Your task to perform on an android device: toggle improve location accuracy Image 0: 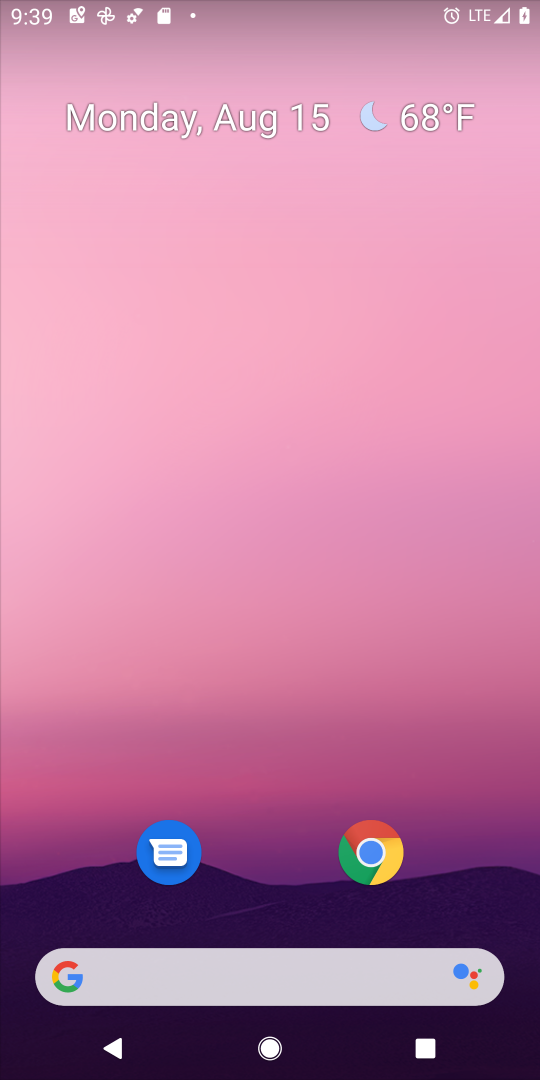
Step 0: drag from (234, 990) to (381, 238)
Your task to perform on an android device: toggle improve location accuracy Image 1: 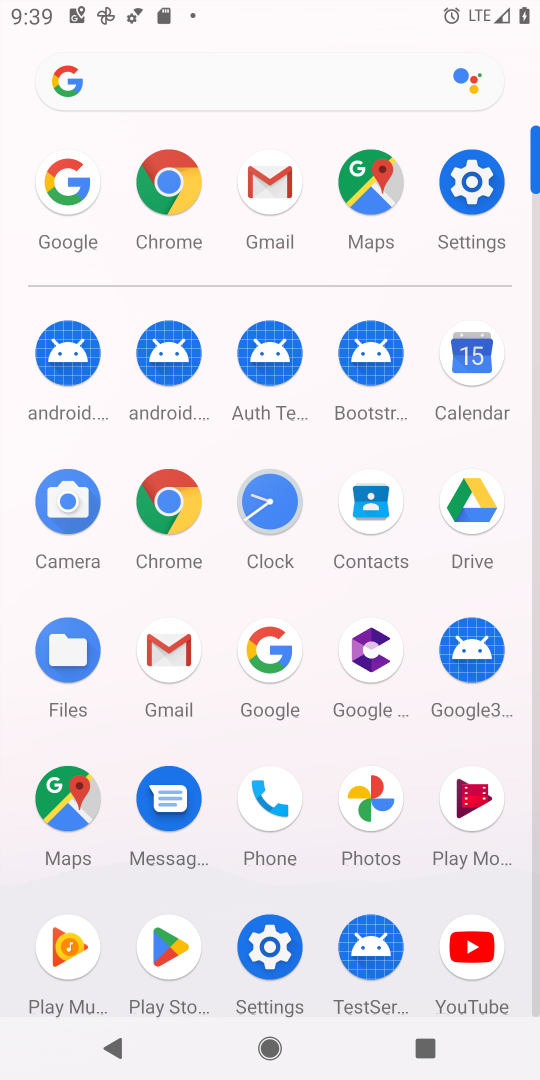
Step 1: click (470, 183)
Your task to perform on an android device: toggle improve location accuracy Image 2: 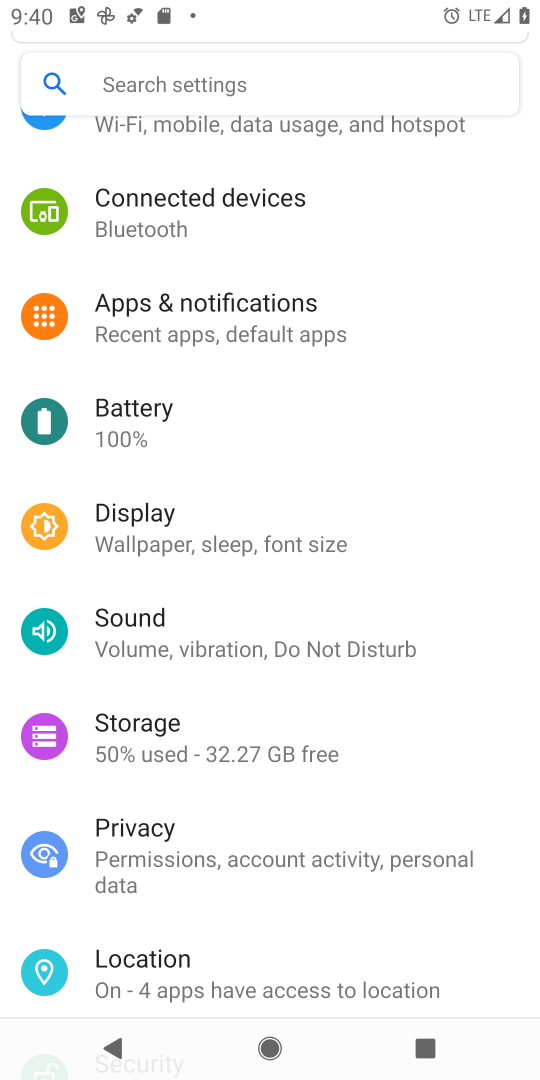
Step 2: drag from (217, 898) to (289, 723)
Your task to perform on an android device: toggle improve location accuracy Image 3: 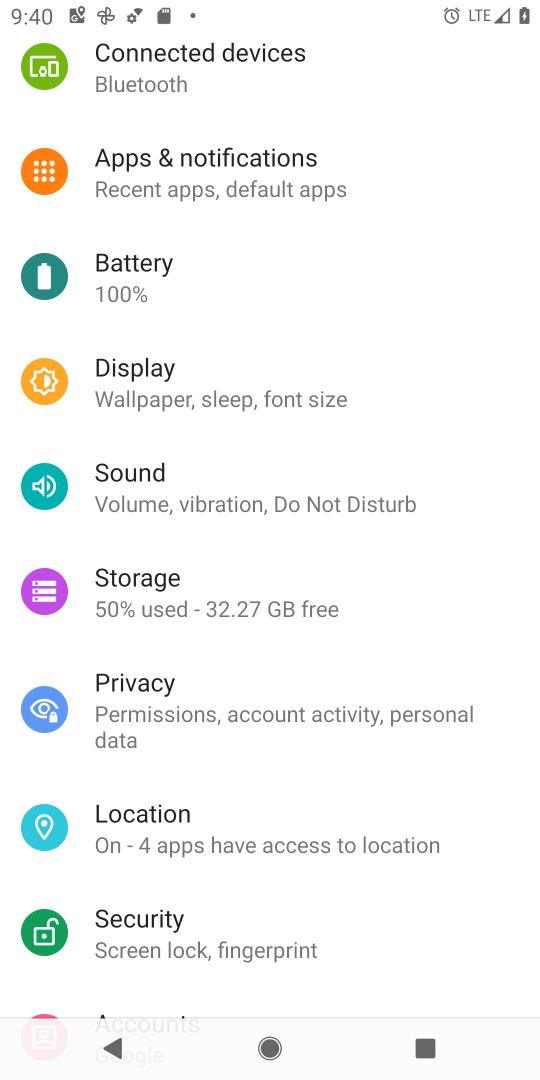
Step 3: click (208, 851)
Your task to perform on an android device: toggle improve location accuracy Image 4: 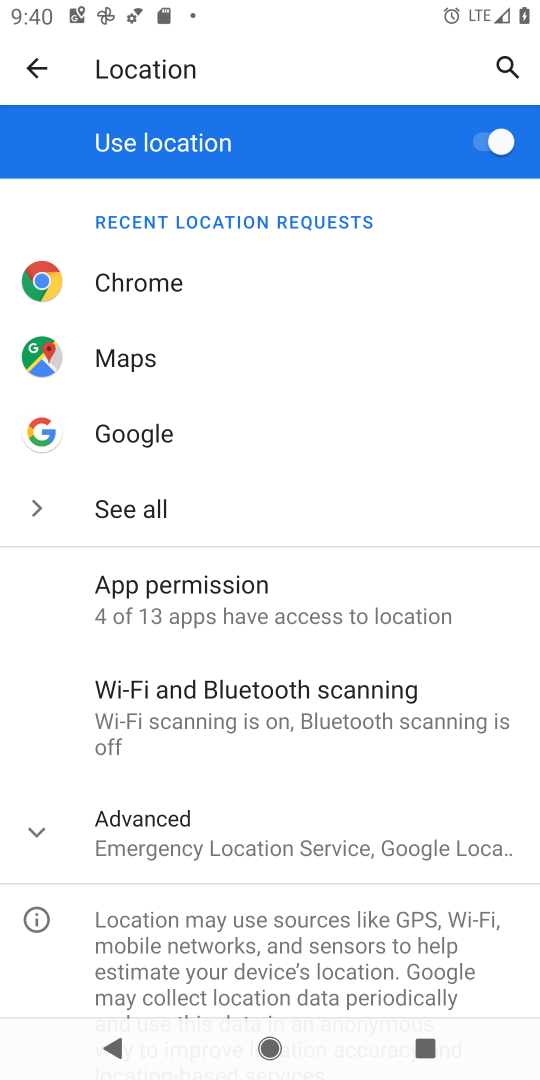
Step 4: click (225, 841)
Your task to perform on an android device: toggle improve location accuracy Image 5: 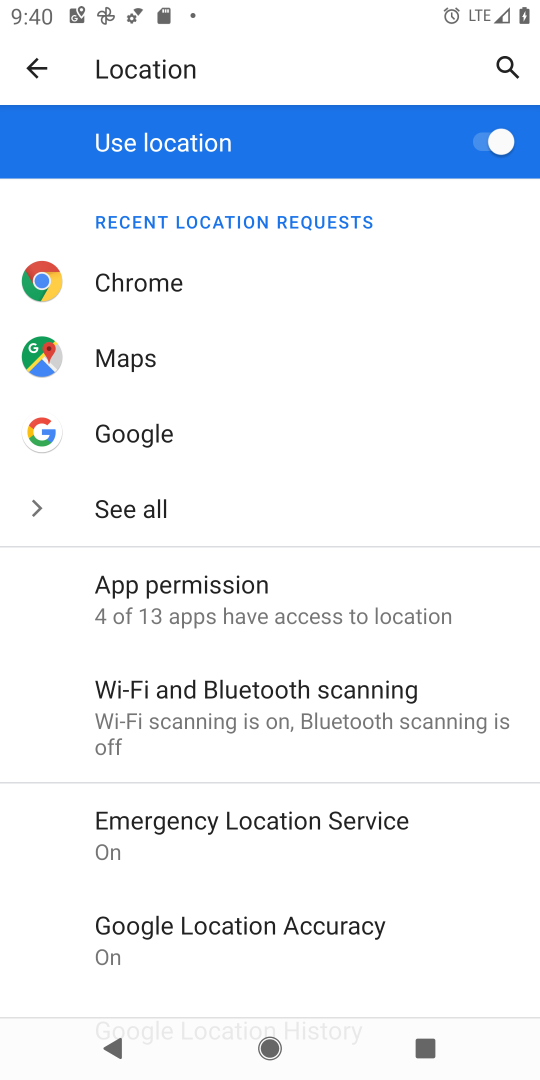
Step 5: click (199, 932)
Your task to perform on an android device: toggle improve location accuracy Image 6: 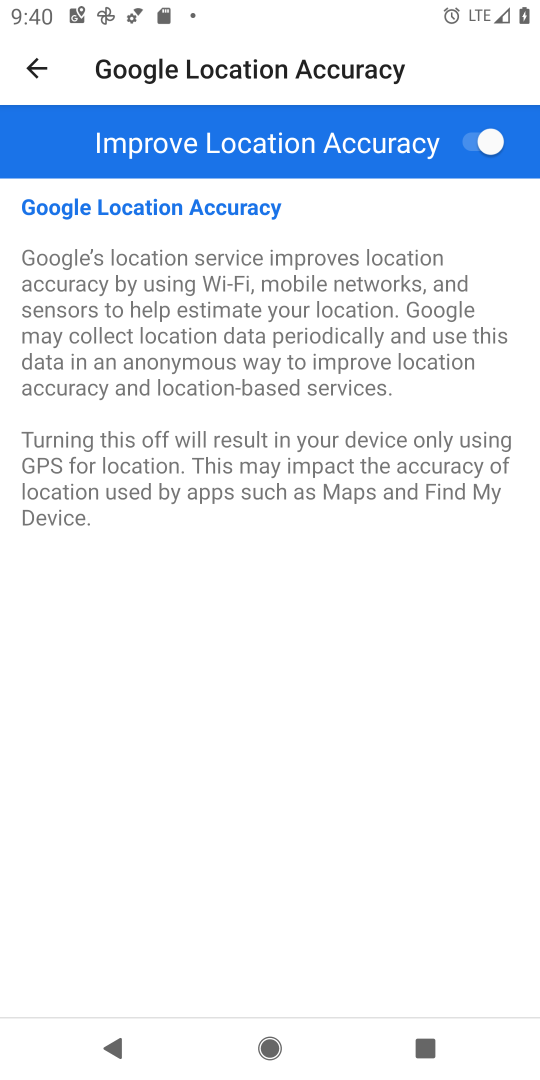
Step 6: click (462, 142)
Your task to perform on an android device: toggle improve location accuracy Image 7: 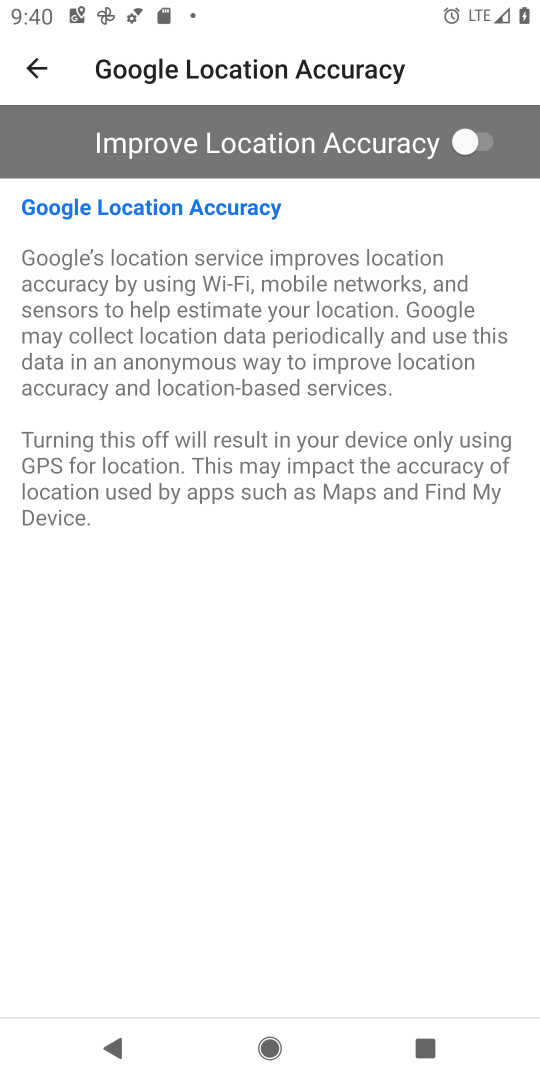
Step 7: task complete